Your task to perform on an android device: Open display settings Image 0: 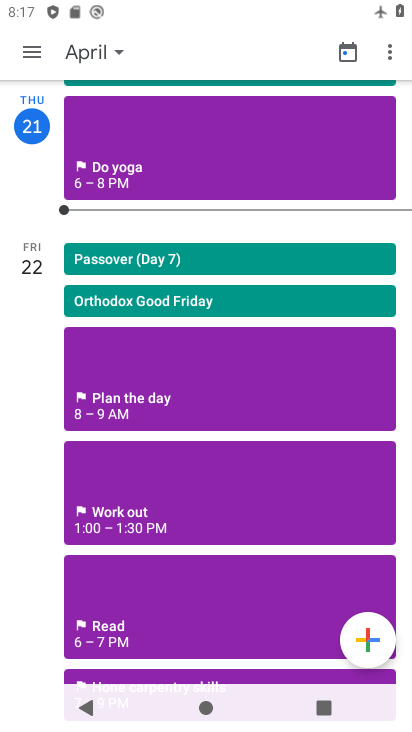
Step 0: press home button
Your task to perform on an android device: Open display settings Image 1: 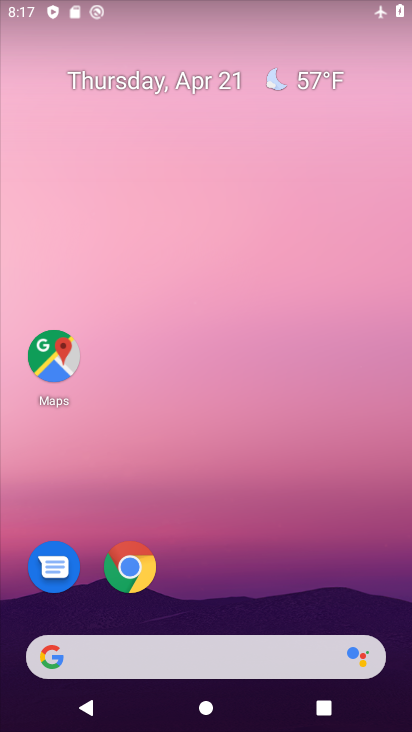
Step 1: drag from (207, 562) to (230, 82)
Your task to perform on an android device: Open display settings Image 2: 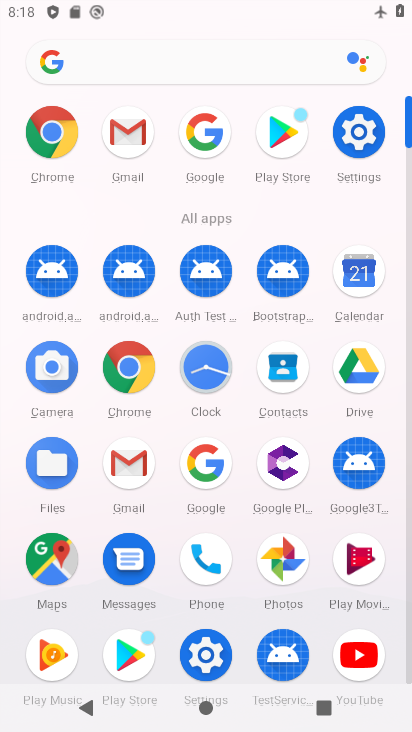
Step 2: click (352, 131)
Your task to perform on an android device: Open display settings Image 3: 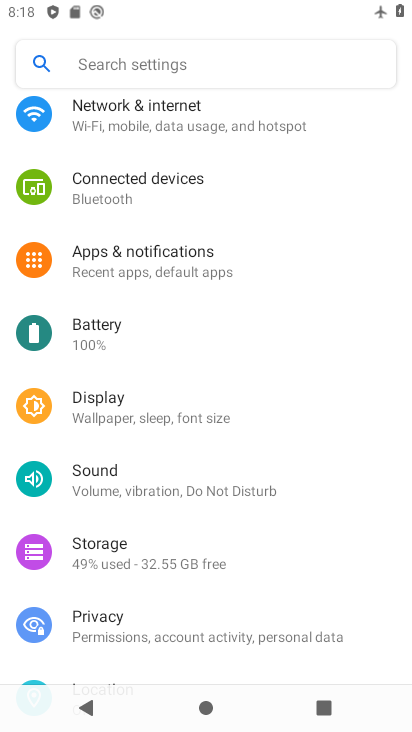
Step 3: click (140, 394)
Your task to perform on an android device: Open display settings Image 4: 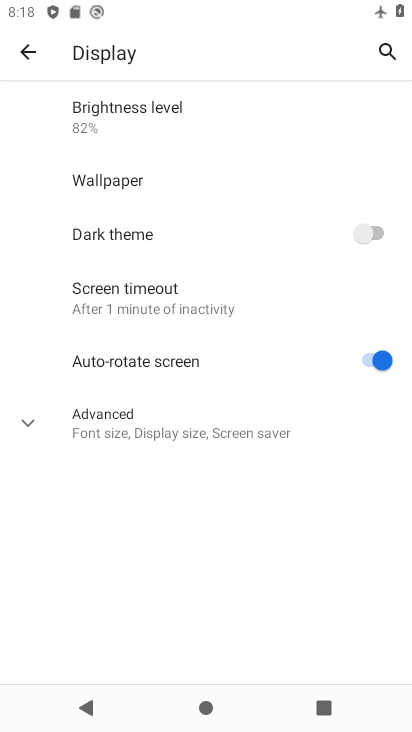
Step 4: task complete